Your task to perform on an android device: add a label to a message in the gmail app Image 0: 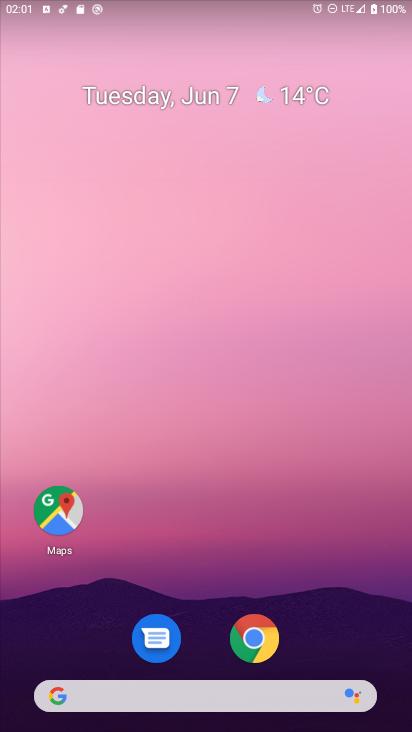
Step 0: drag from (209, 716) to (353, 291)
Your task to perform on an android device: add a label to a message in the gmail app Image 1: 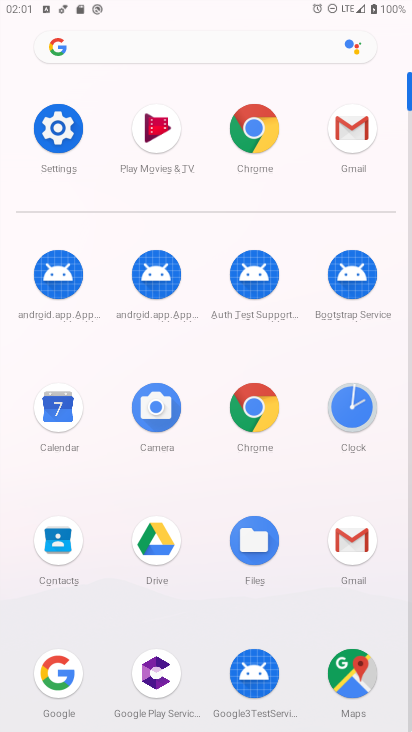
Step 1: click (332, 538)
Your task to perform on an android device: add a label to a message in the gmail app Image 2: 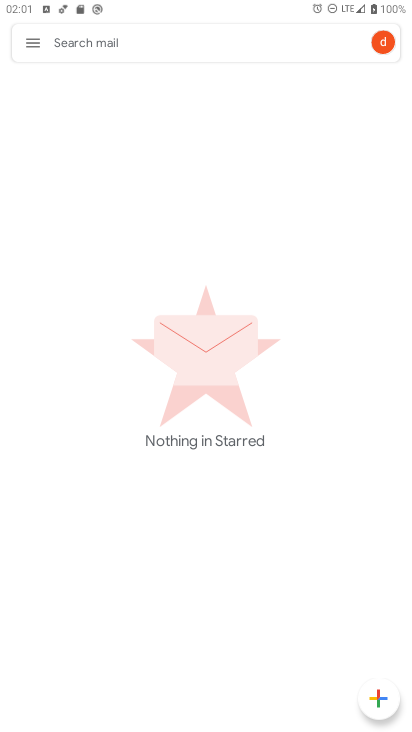
Step 2: click (28, 41)
Your task to perform on an android device: add a label to a message in the gmail app Image 3: 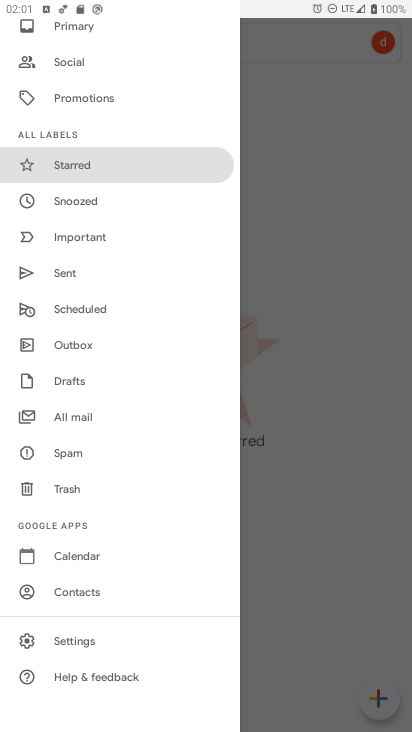
Step 3: click (73, 634)
Your task to perform on an android device: add a label to a message in the gmail app Image 4: 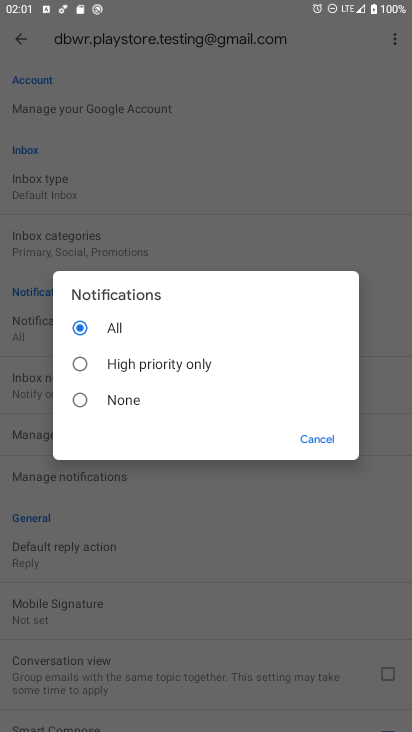
Step 4: click (310, 433)
Your task to perform on an android device: add a label to a message in the gmail app Image 5: 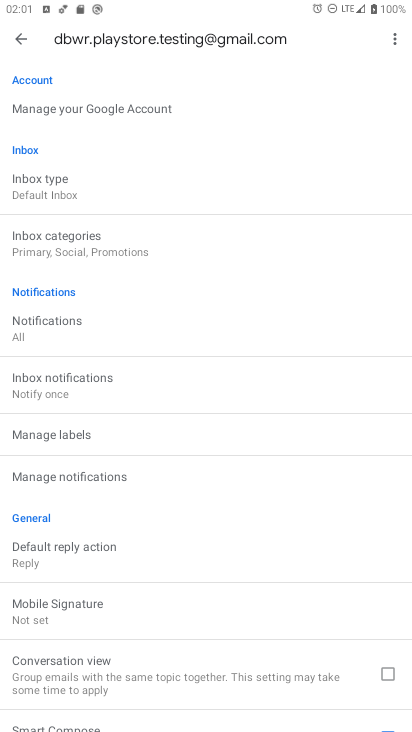
Step 5: click (99, 442)
Your task to perform on an android device: add a label to a message in the gmail app Image 6: 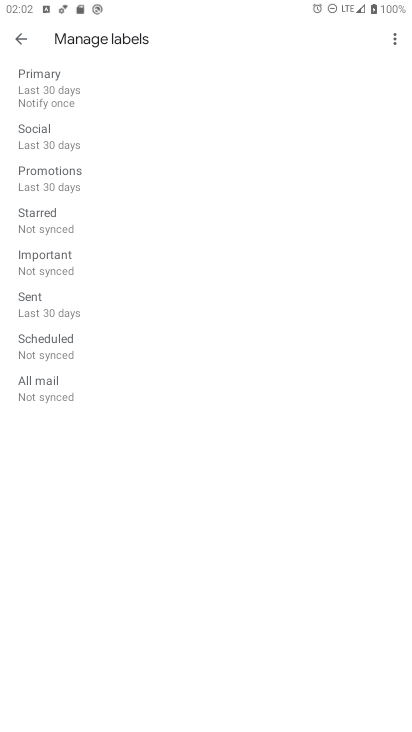
Step 6: click (118, 201)
Your task to perform on an android device: add a label to a message in the gmail app Image 7: 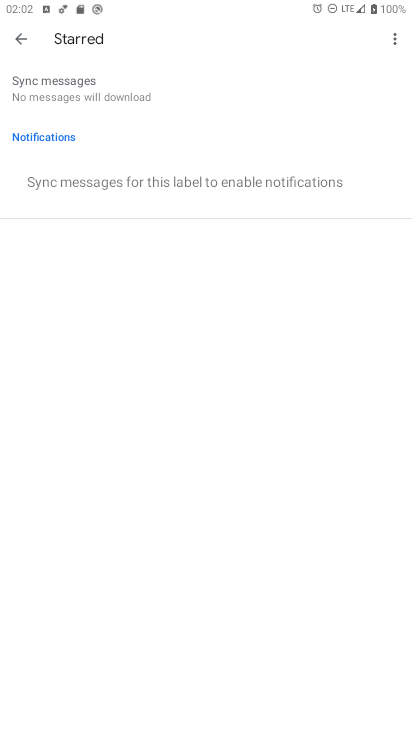
Step 7: task complete